Your task to perform on an android device: toggle improve location accuracy Image 0: 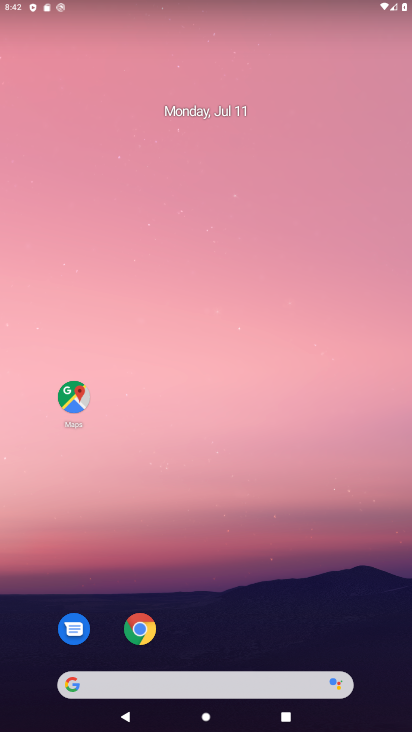
Step 0: drag from (272, 594) to (209, 46)
Your task to perform on an android device: toggle improve location accuracy Image 1: 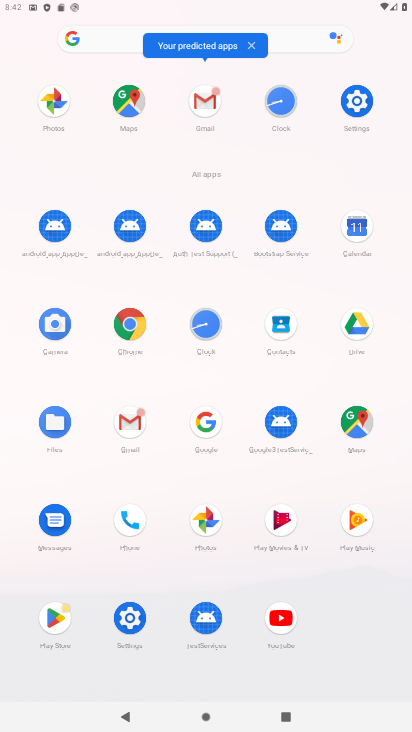
Step 1: click (353, 101)
Your task to perform on an android device: toggle improve location accuracy Image 2: 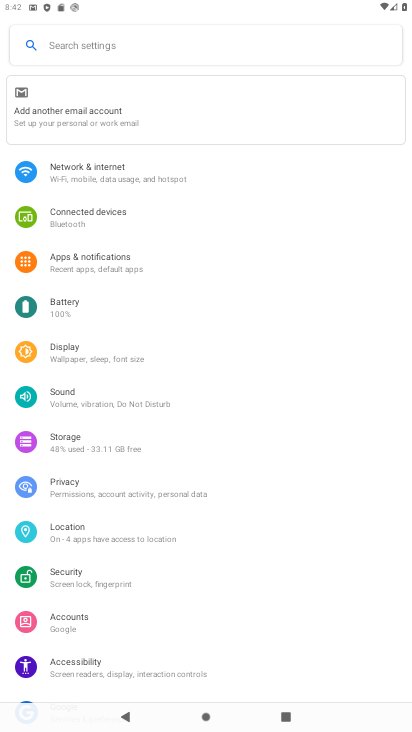
Step 2: drag from (205, 605) to (154, 353)
Your task to perform on an android device: toggle improve location accuracy Image 3: 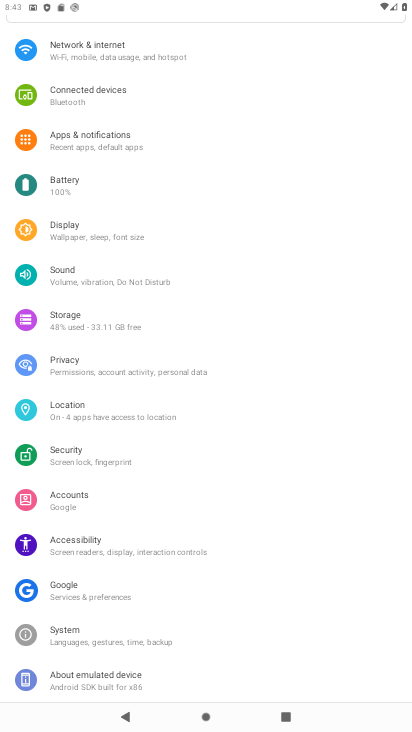
Step 3: click (118, 415)
Your task to perform on an android device: toggle improve location accuracy Image 4: 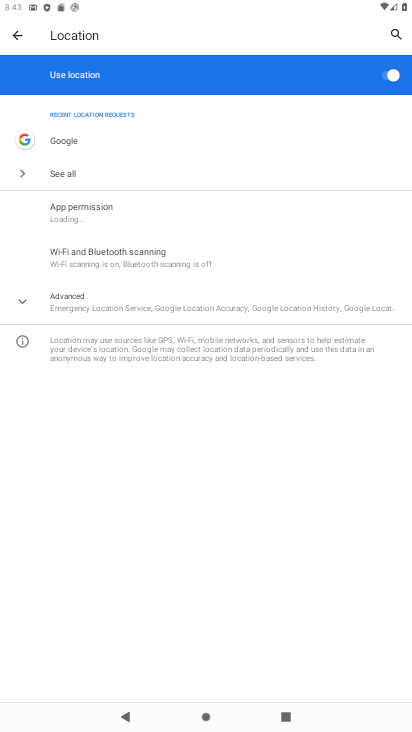
Step 4: click (54, 298)
Your task to perform on an android device: toggle improve location accuracy Image 5: 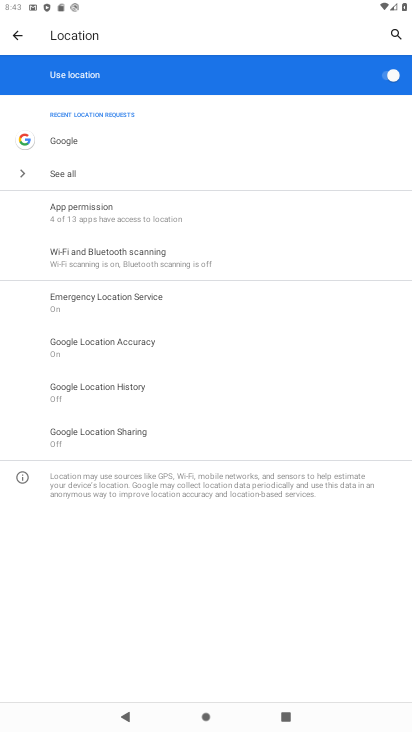
Step 5: click (125, 351)
Your task to perform on an android device: toggle improve location accuracy Image 6: 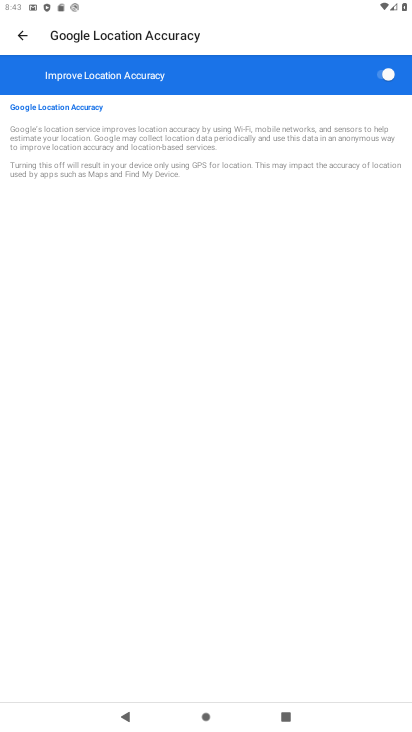
Step 6: click (382, 76)
Your task to perform on an android device: toggle improve location accuracy Image 7: 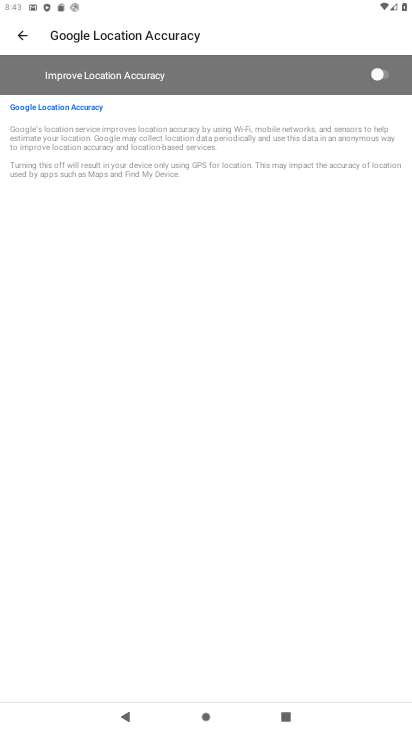
Step 7: task complete